Your task to perform on an android device: Open the calendar app, open the side menu, and click the "Day" option Image 0: 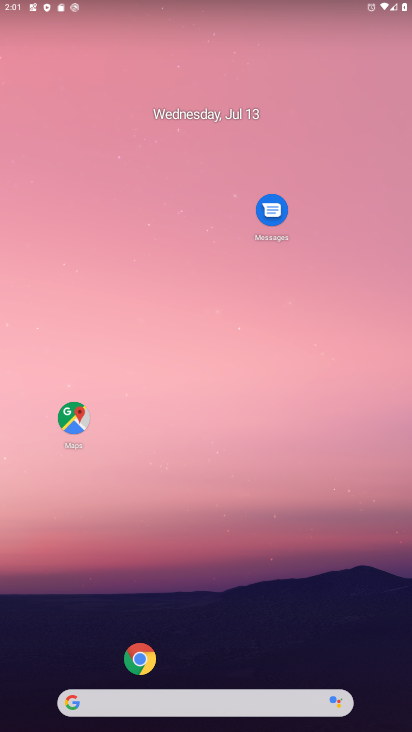
Step 0: drag from (147, 107) to (194, 40)
Your task to perform on an android device: Open the calendar app, open the side menu, and click the "Day" option Image 1: 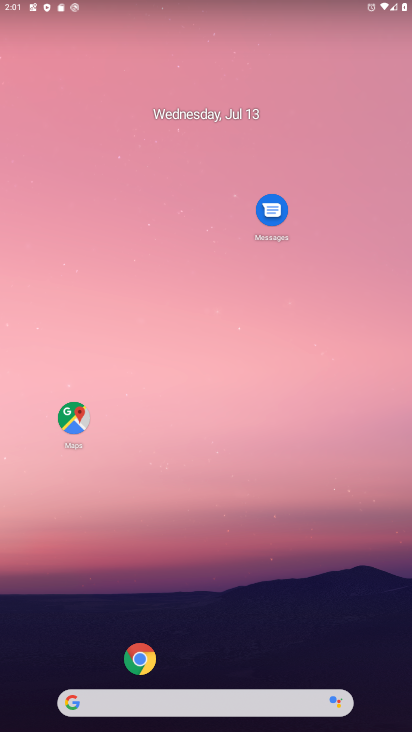
Step 1: drag from (24, 687) to (102, 24)
Your task to perform on an android device: Open the calendar app, open the side menu, and click the "Day" option Image 2: 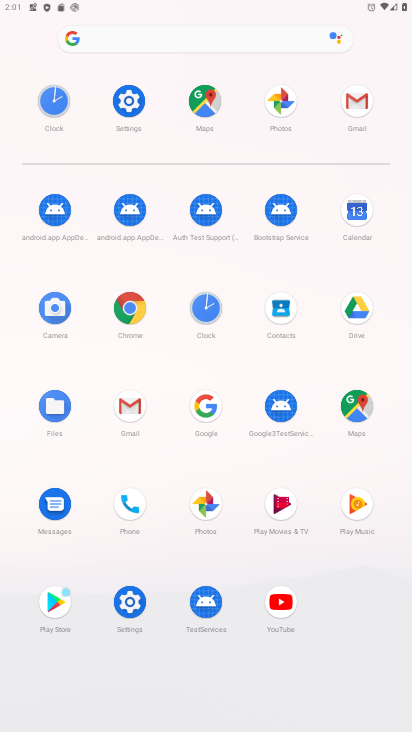
Step 2: click (360, 214)
Your task to perform on an android device: Open the calendar app, open the side menu, and click the "Day" option Image 3: 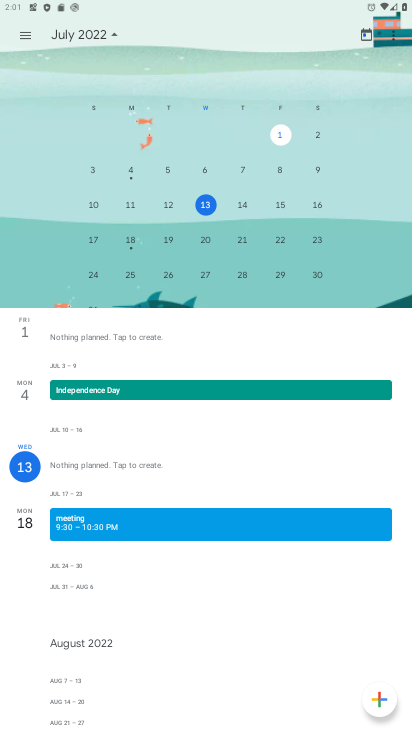
Step 3: click (27, 32)
Your task to perform on an android device: Open the calendar app, open the side menu, and click the "Day" option Image 4: 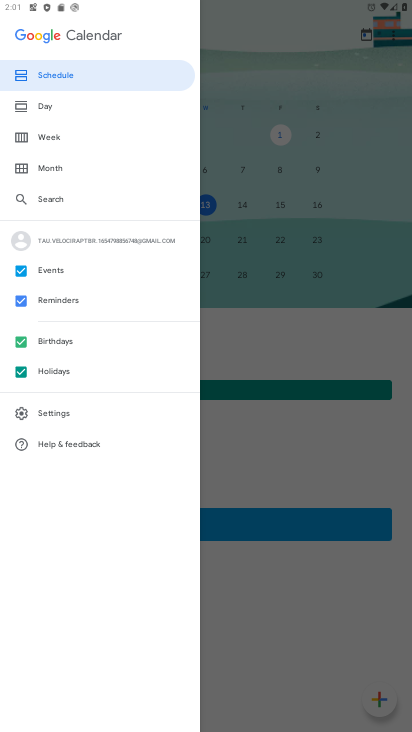
Step 4: click (57, 110)
Your task to perform on an android device: Open the calendar app, open the side menu, and click the "Day" option Image 5: 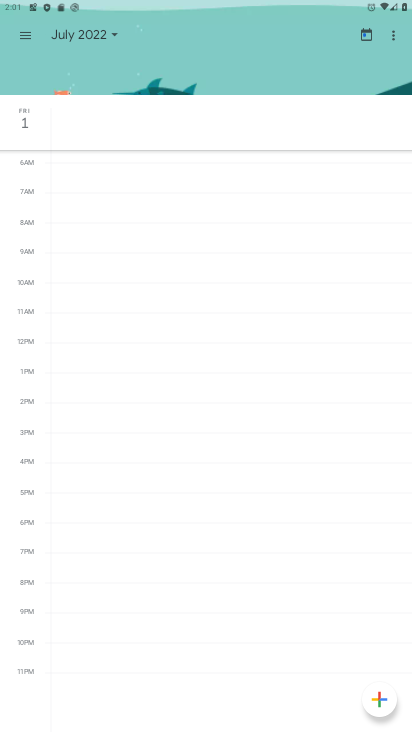
Step 5: task complete